Your task to perform on an android device: change keyboard looks Image 0: 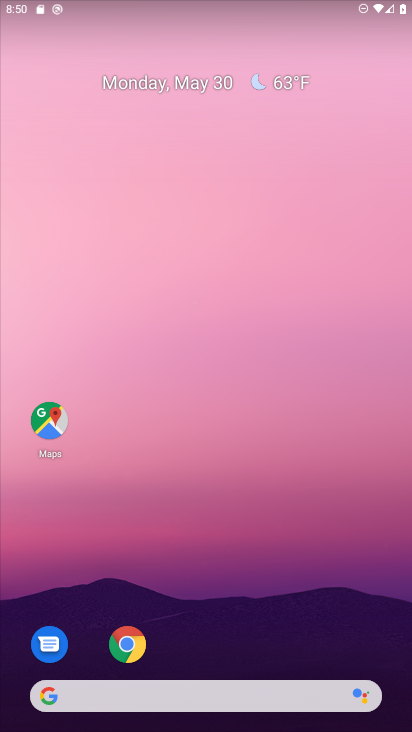
Step 0: drag from (210, 652) to (284, 87)
Your task to perform on an android device: change keyboard looks Image 1: 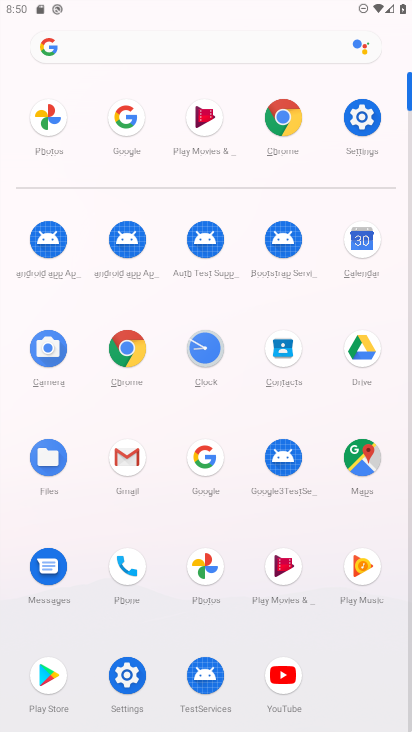
Step 1: click (131, 677)
Your task to perform on an android device: change keyboard looks Image 2: 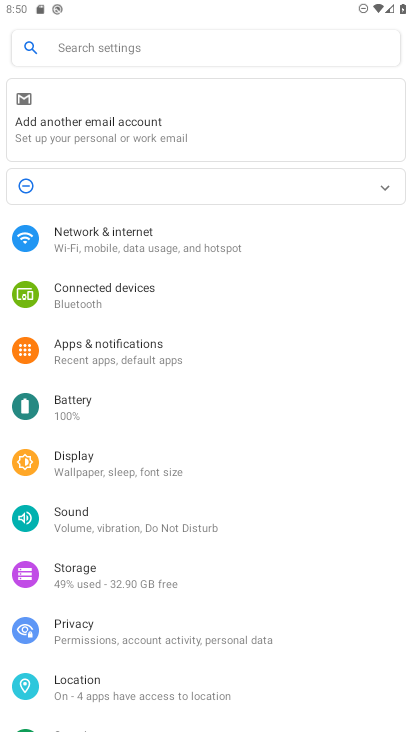
Step 2: drag from (155, 655) to (170, 312)
Your task to perform on an android device: change keyboard looks Image 3: 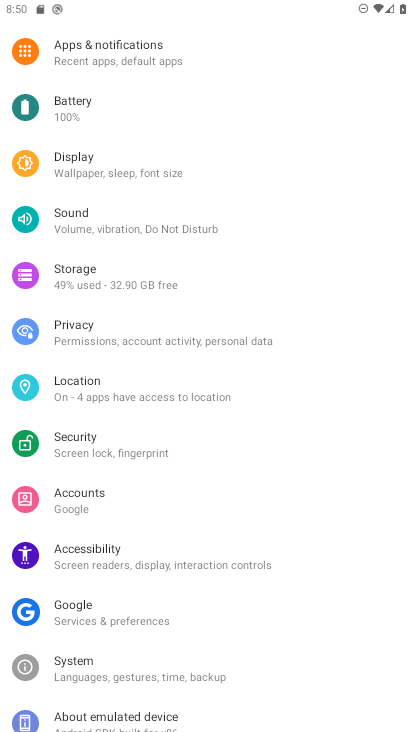
Step 3: click (87, 668)
Your task to perform on an android device: change keyboard looks Image 4: 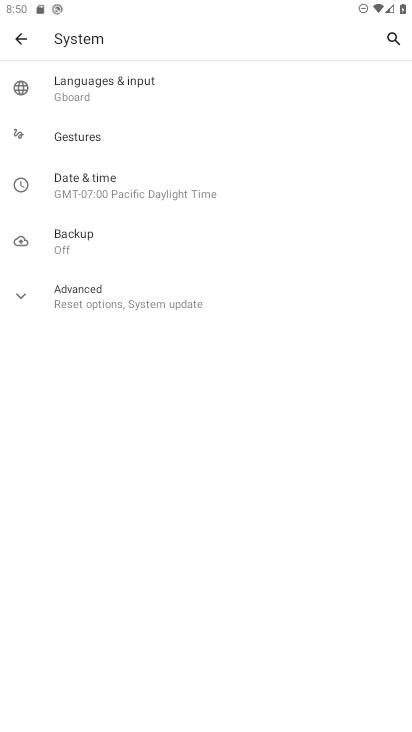
Step 4: click (121, 94)
Your task to perform on an android device: change keyboard looks Image 5: 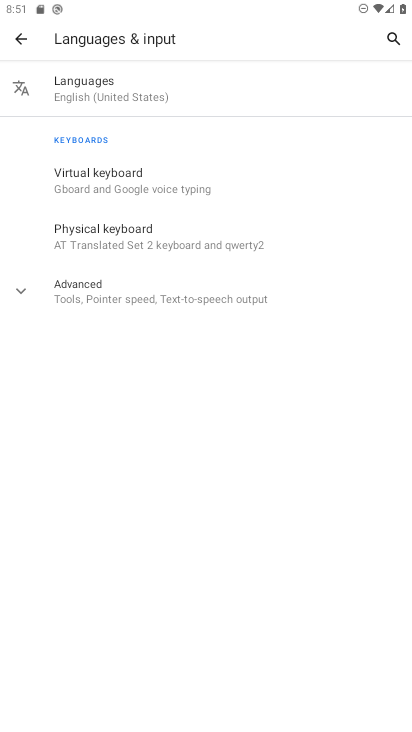
Step 5: click (118, 184)
Your task to perform on an android device: change keyboard looks Image 6: 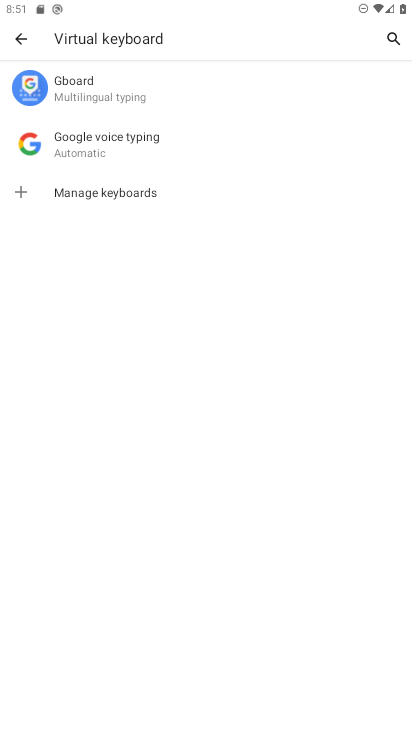
Step 6: click (101, 86)
Your task to perform on an android device: change keyboard looks Image 7: 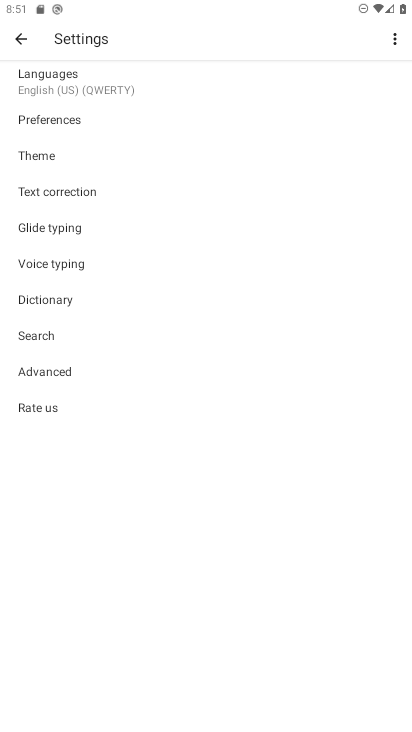
Step 7: click (62, 149)
Your task to perform on an android device: change keyboard looks Image 8: 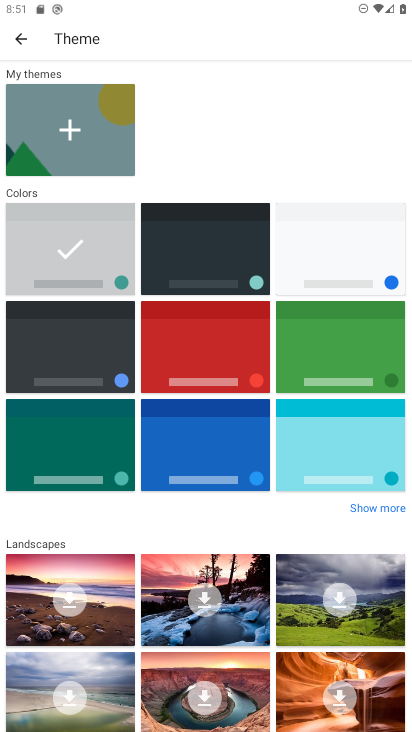
Step 8: click (207, 259)
Your task to perform on an android device: change keyboard looks Image 9: 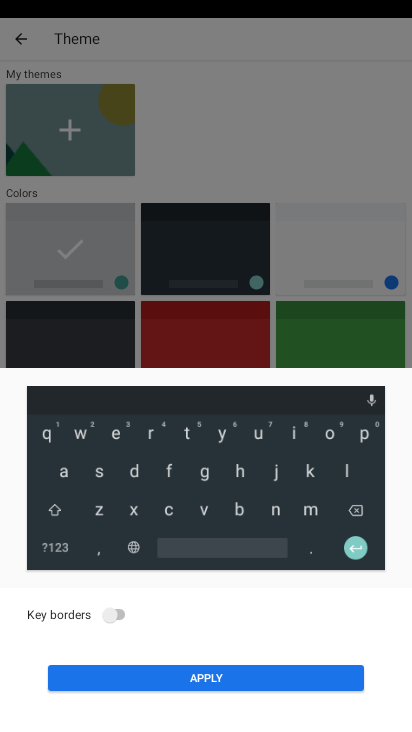
Step 9: click (208, 679)
Your task to perform on an android device: change keyboard looks Image 10: 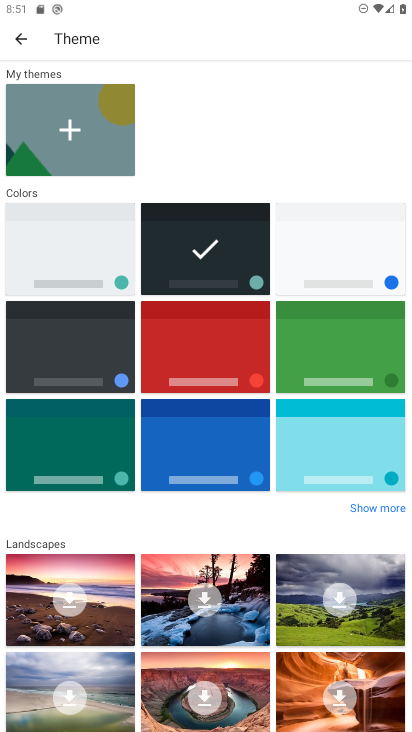
Step 10: task complete